Your task to perform on an android device: Play the last video I watched on Youtube Image 0: 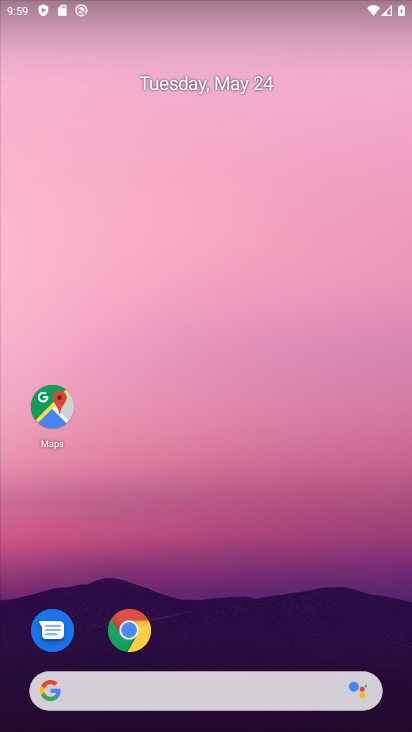
Step 0: press home button
Your task to perform on an android device: Play the last video I watched on Youtube Image 1: 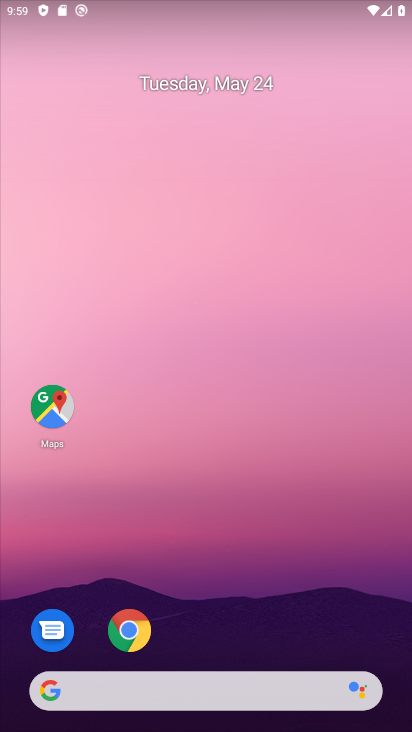
Step 1: drag from (219, 653) to (267, 79)
Your task to perform on an android device: Play the last video I watched on Youtube Image 2: 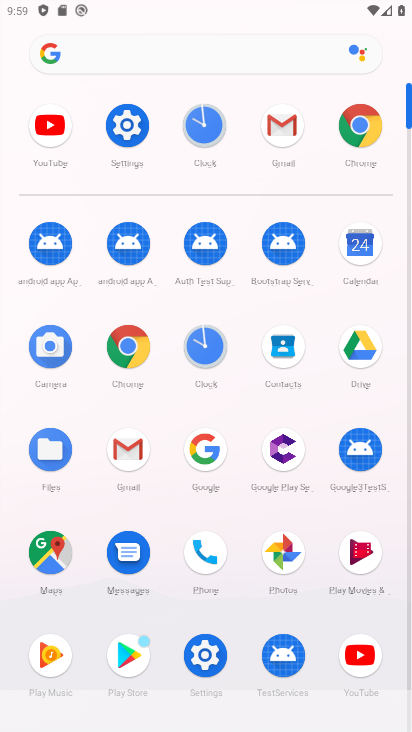
Step 2: click (359, 648)
Your task to perform on an android device: Play the last video I watched on Youtube Image 3: 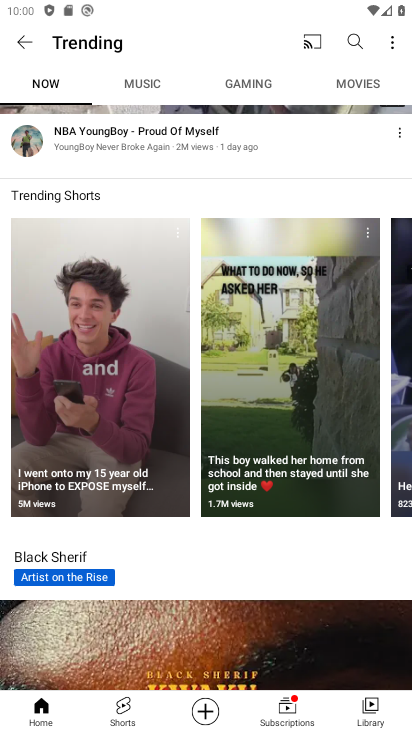
Step 3: click (368, 705)
Your task to perform on an android device: Play the last video I watched on Youtube Image 4: 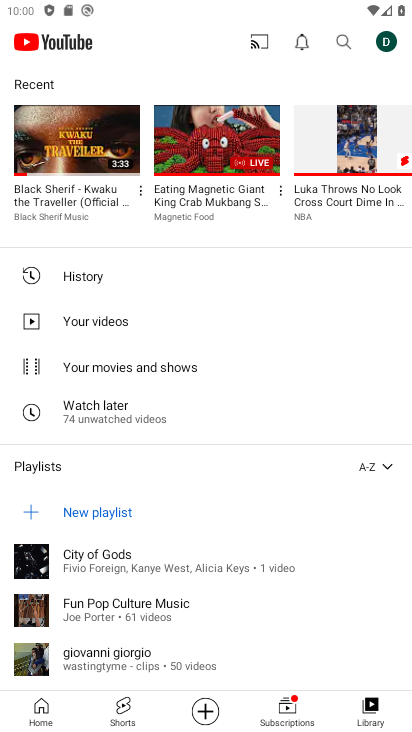
Step 4: click (72, 143)
Your task to perform on an android device: Play the last video I watched on Youtube Image 5: 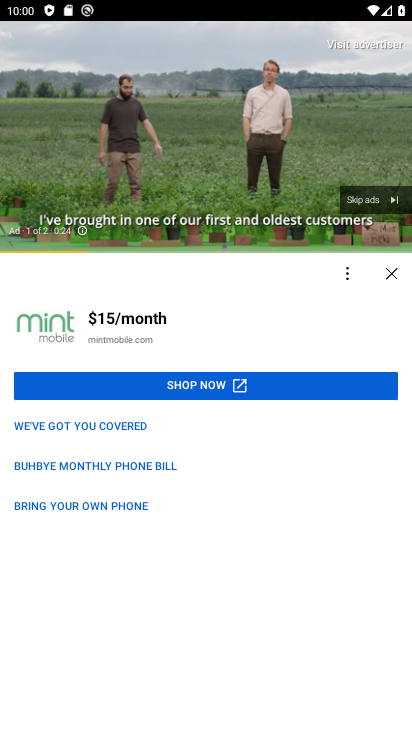
Step 5: click (381, 195)
Your task to perform on an android device: Play the last video I watched on Youtube Image 6: 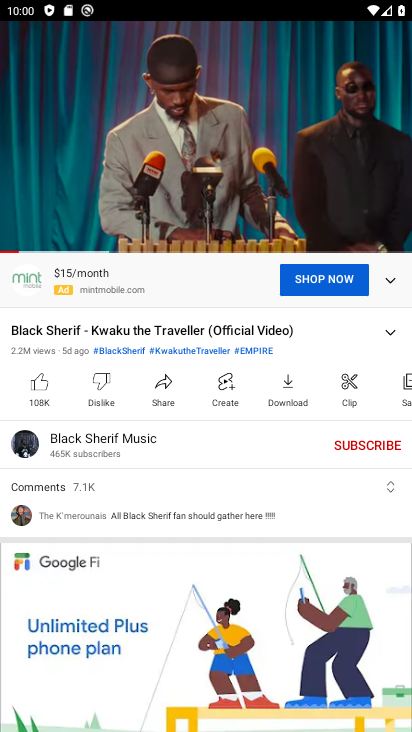
Step 6: task complete